Your task to perform on an android device: turn off priority inbox in the gmail app Image 0: 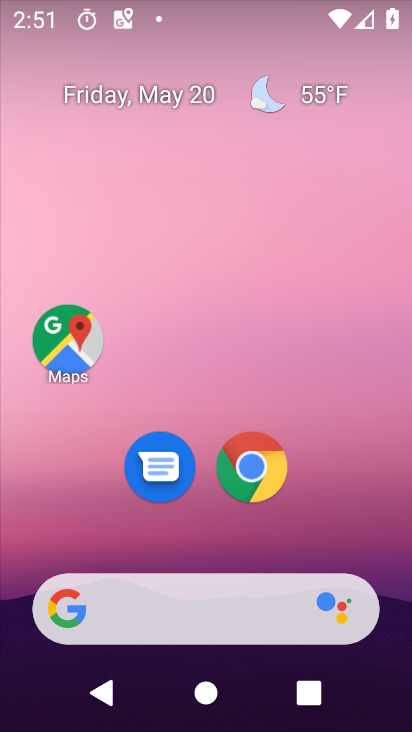
Step 0: drag from (187, 467) to (162, 34)
Your task to perform on an android device: turn off priority inbox in the gmail app Image 1: 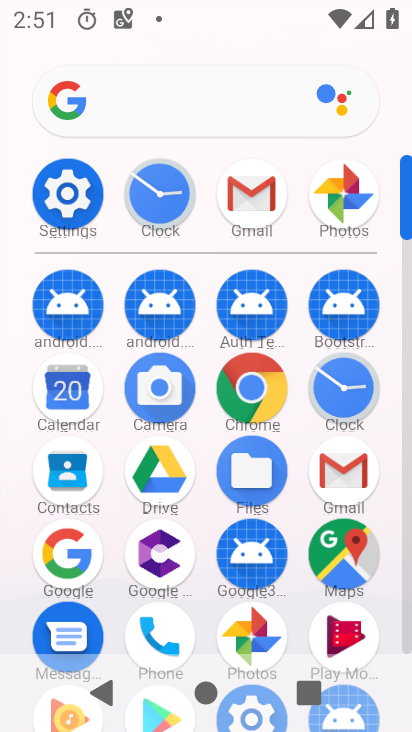
Step 1: click (244, 204)
Your task to perform on an android device: turn off priority inbox in the gmail app Image 2: 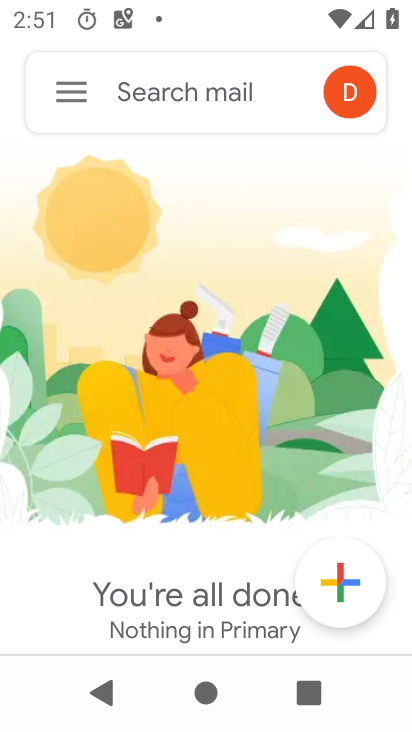
Step 2: click (75, 84)
Your task to perform on an android device: turn off priority inbox in the gmail app Image 3: 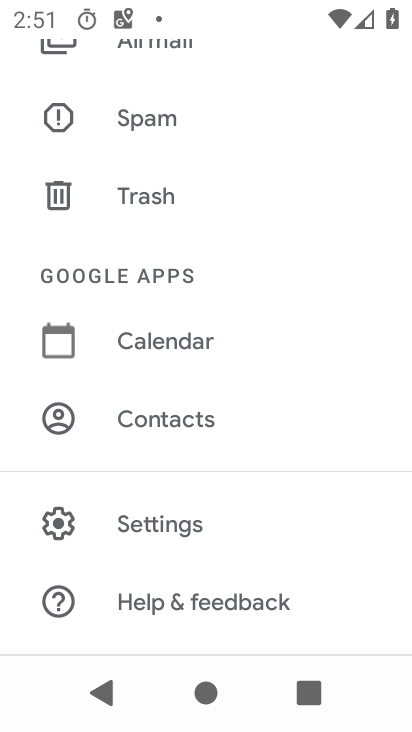
Step 3: click (203, 534)
Your task to perform on an android device: turn off priority inbox in the gmail app Image 4: 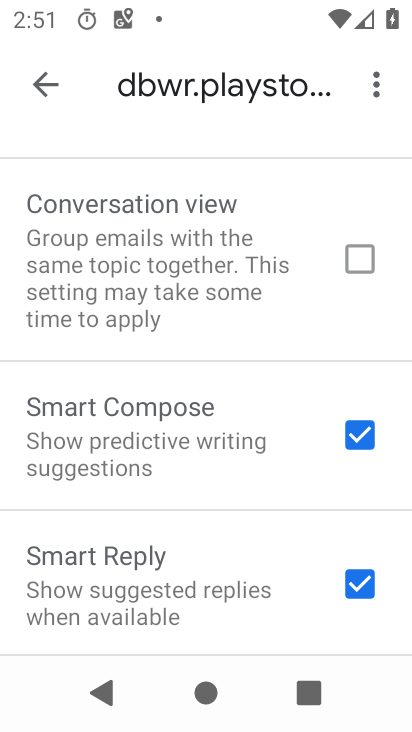
Step 4: drag from (180, 316) to (211, 680)
Your task to perform on an android device: turn off priority inbox in the gmail app Image 5: 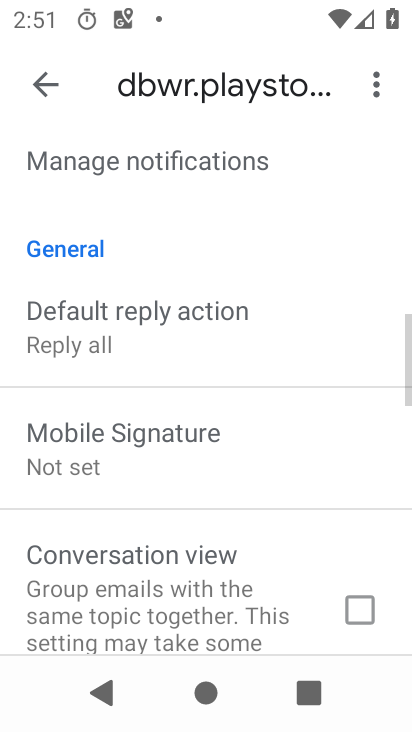
Step 5: drag from (164, 290) to (176, 546)
Your task to perform on an android device: turn off priority inbox in the gmail app Image 6: 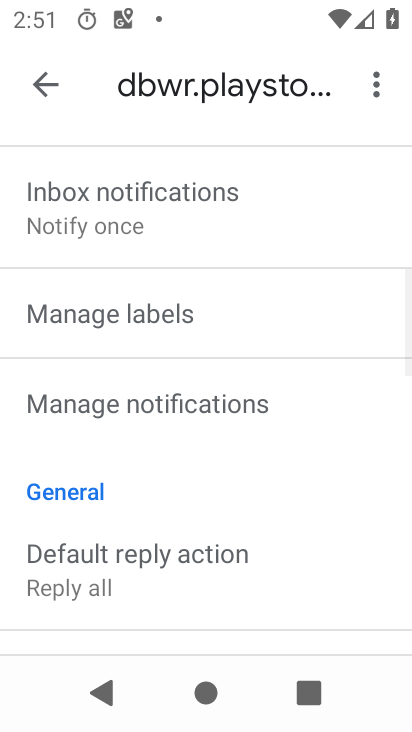
Step 6: drag from (170, 263) to (137, 556)
Your task to perform on an android device: turn off priority inbox in the gmail app Image 7: 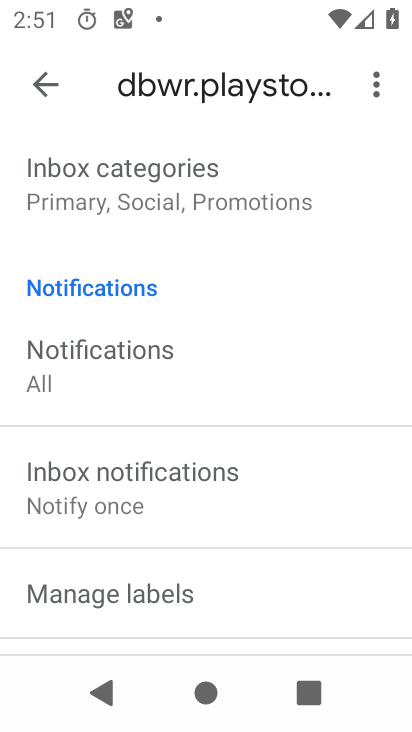
Step 7: drag from (148, 374) to (155, 587)
Your task to perform on an android device: turn off priority inbox in the gmail app Image 8: 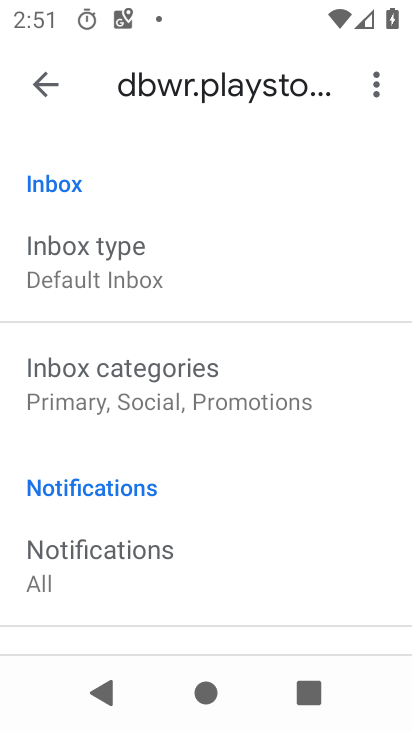
Step 8: click (170, 279)
Your task to perform on an android device: turn off priority inbox in the gmail app Image 9: 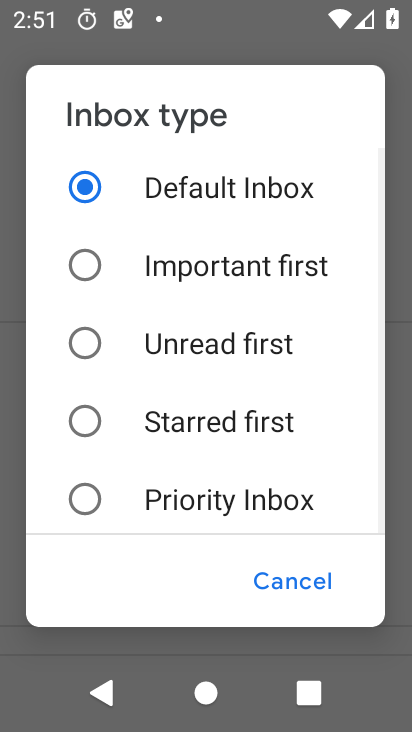
Step 9: drag from (160, 495) to (168, 186)
Your task to perform on an android device: turn off priority inbox in the gmail app Image 10: 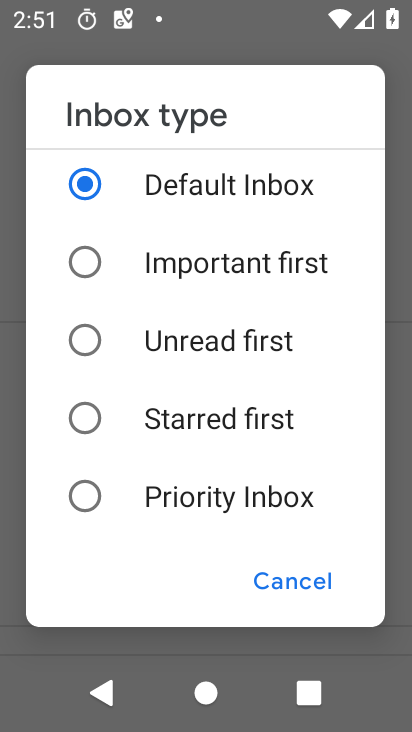
Step 10: click (210, 175)
Your task to perform on an android device: turn off priority inbox in the gmail app Image 11: 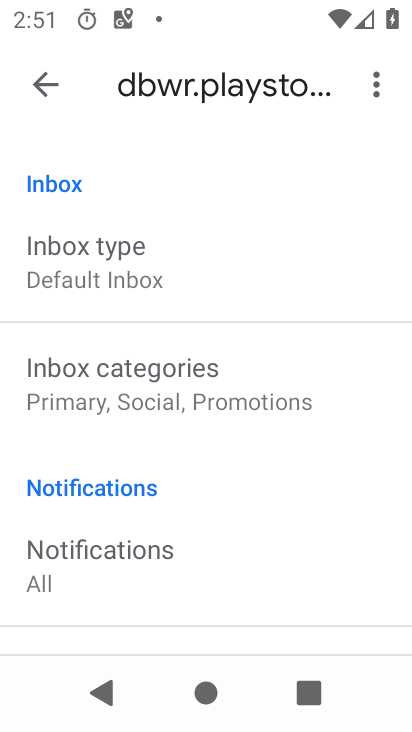
Step 11: task complete